Your task to perform on an android device: Go to Yahoo.com Image 0: 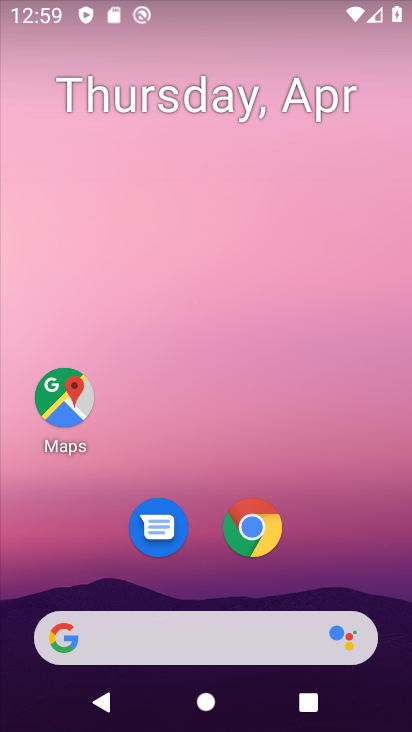
Step 0: click (253, 515)
Your task to perform on an android device: Go to Yahoo.com Image 1: 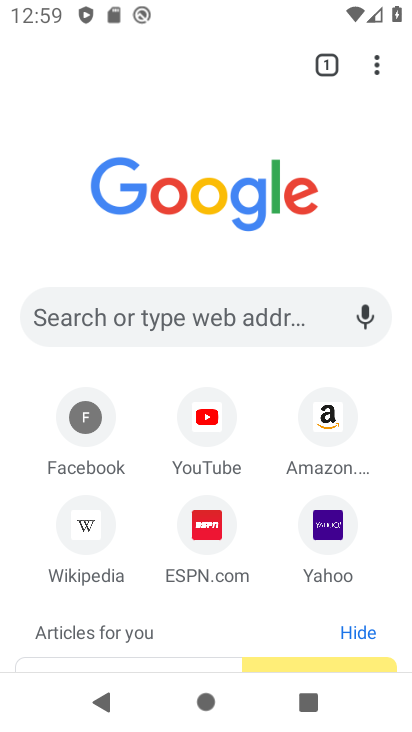
Step 1: click (128, 314)
Your task to perform on an android device: Go to Yahoo.com Image 2: 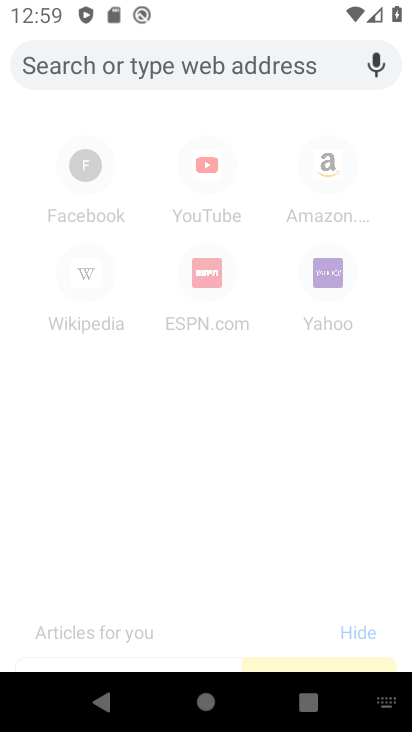
Step 2: click (322, 294)
Your task to perform on an android device: Go to Yahoo.com Image 3: 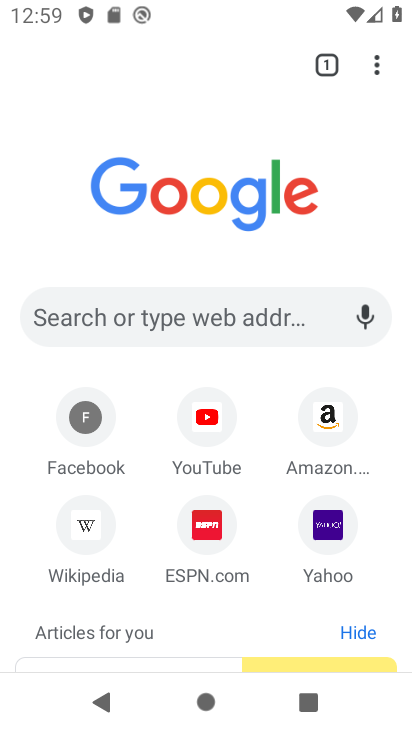
Step 3: click (326, 516)
Your task to perform on an android device: Go to Yahoo.com Image 4: 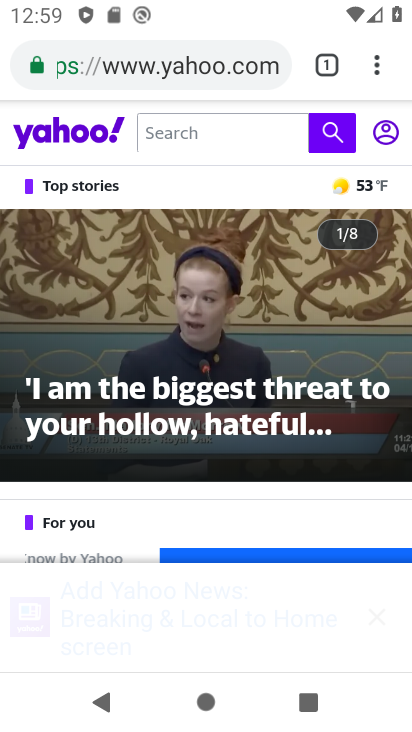
Step 4: task complete